Your task to perform on an android device: Open display settings Image 0: 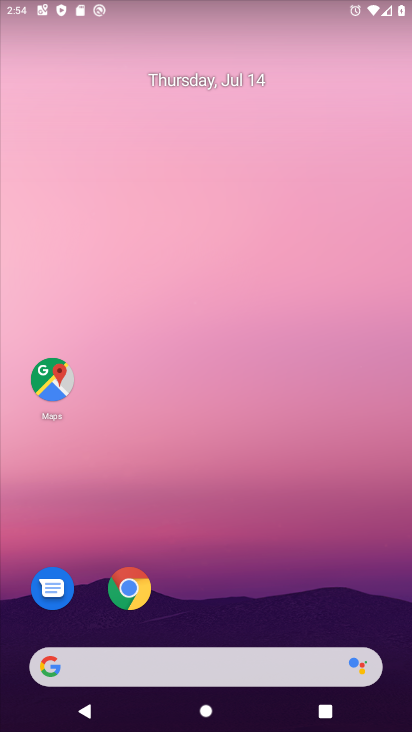
Step 0: drag from (254, 592) to (271, 113)
Your task to perform on an android device: Open display settings Image 1: 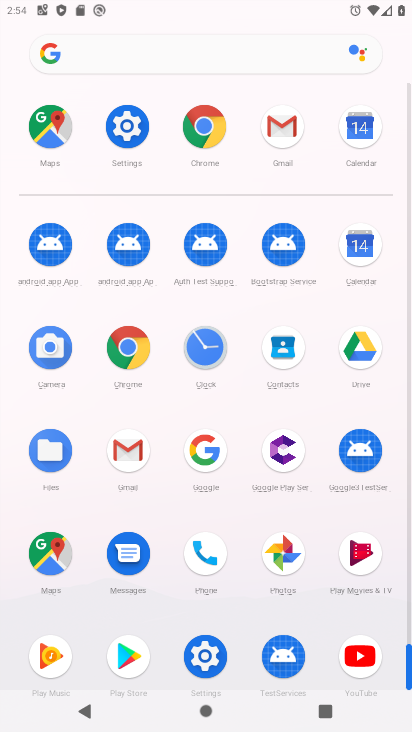
Step 1: click (118, 108)
Your task to perform on an android device: Open display settings Image 2: 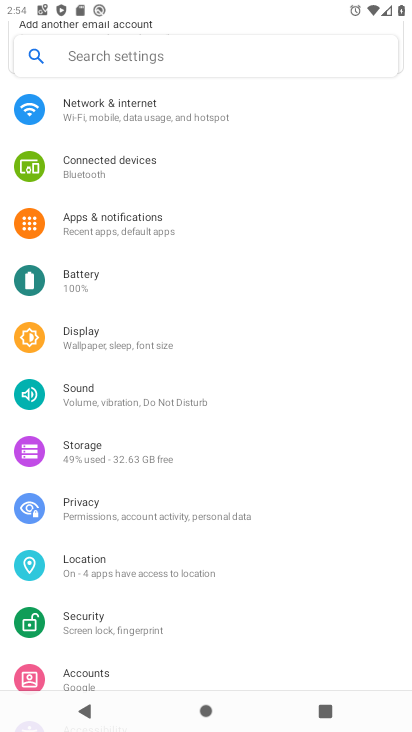
Step 2: click (121, 117)
Your task to perform on an android device: Open display settings Image 3: 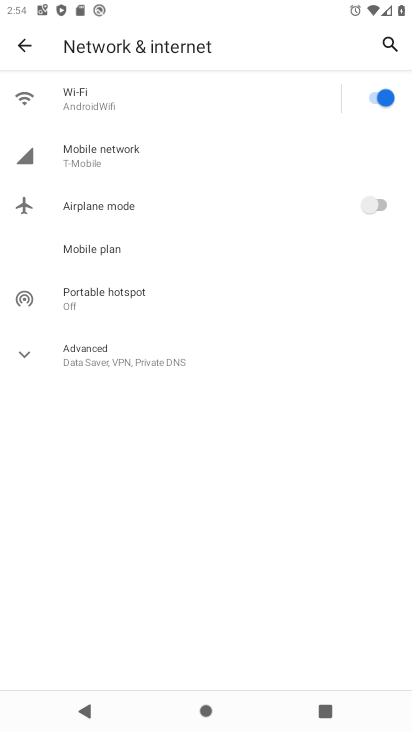
Step 3: click (37, 46)
Your task to perform on an android device: Open display settings Image 4: 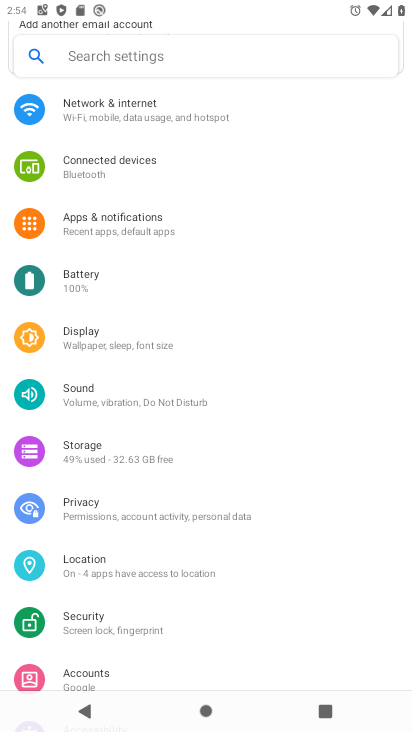
Step 4: click (118, 335)
Your task to perform on an android device: Open display settings Image 5: 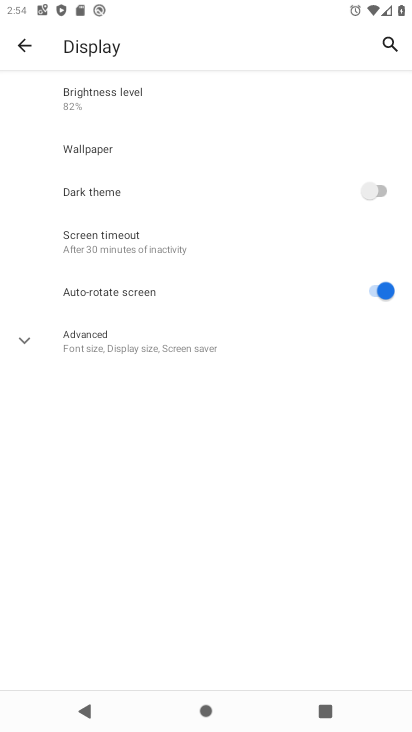
Step 5: task complete